Your task to perform on an android device: set default search engine in the chrome app Image 0: 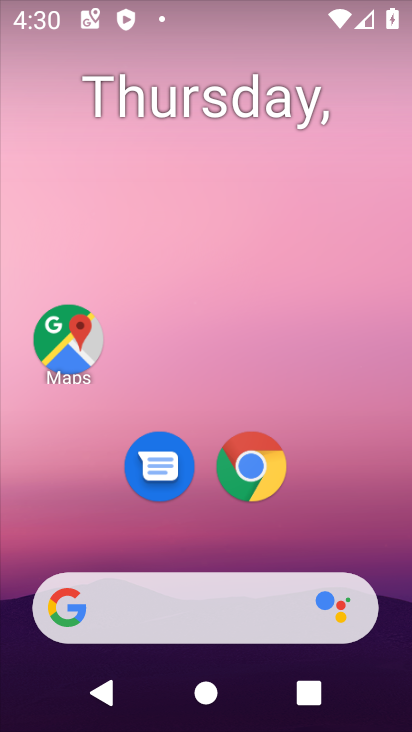
Step 0: drag from (383, 296) to (407, 48)
Your task to perform on an android device: set default search engine in the chrome app Image 1: 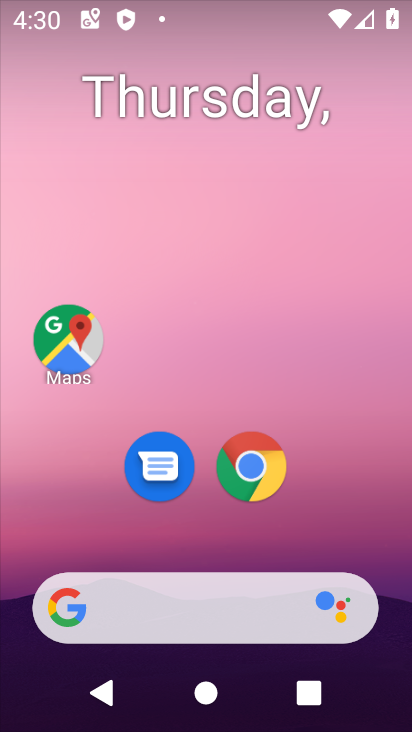
Step 1: click (241, 449)
Your task to perform on an android device: set default search engine in the chrome app Image 2: 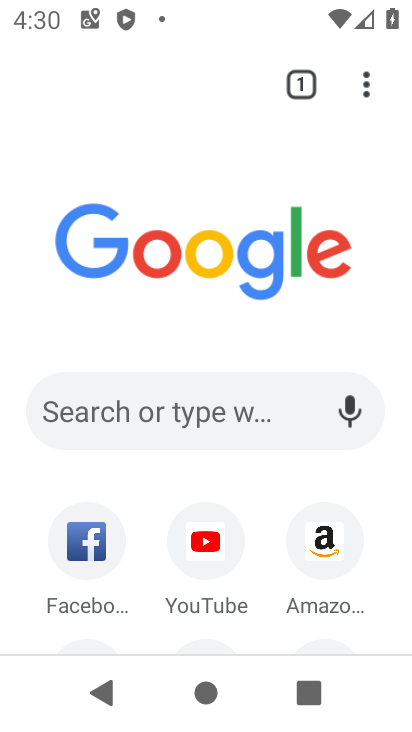
Step 2: drag from (372, 87) to (123, 517)
Your task to perform on an android device: set default search engine in the chrome app Image 3: 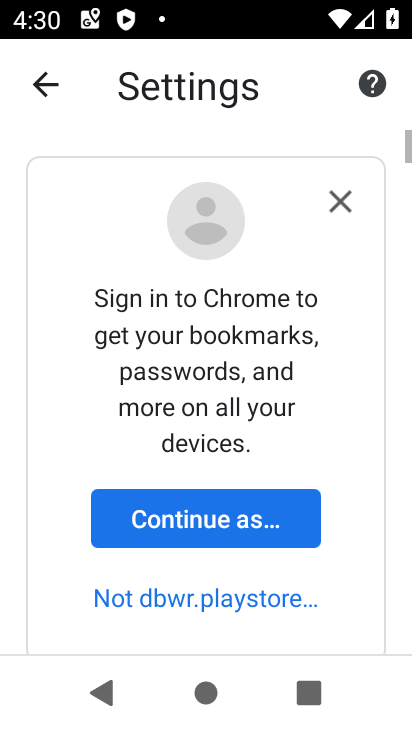
Step 3: drag from (215, 586) to (181, 143)
Your task to perform on an android device: set default search engine in the chrome app Image 4: 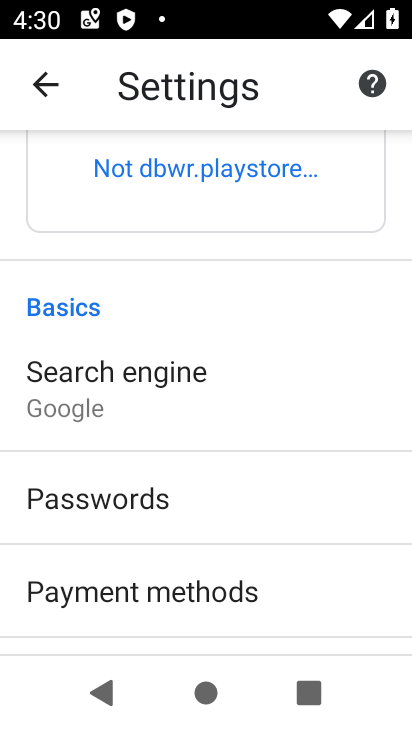
Step 4: click (115, 392)
Your task to perform on an android device: set default search engine in the chrome app Image 5: 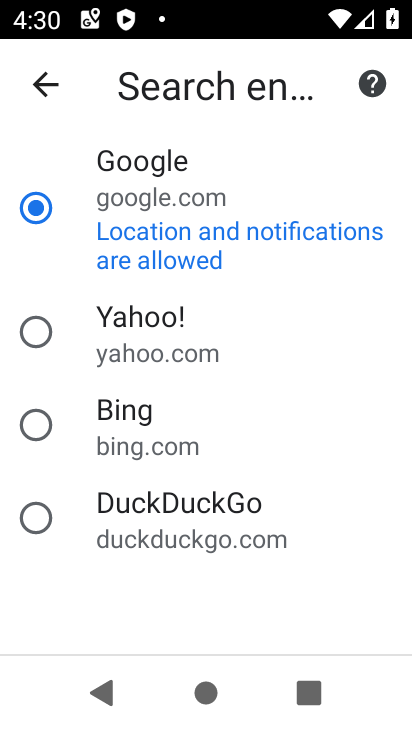
Step 5: task complete